Your task to perform on an android device: Go to calendar. Show me events next week Image 0: 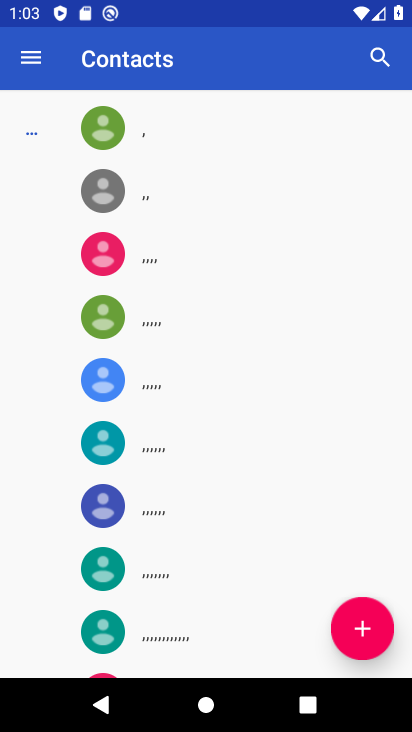
Step 0: press home button
Your task to perform on an android device: Go to calendar. Show me events next week Image 1: 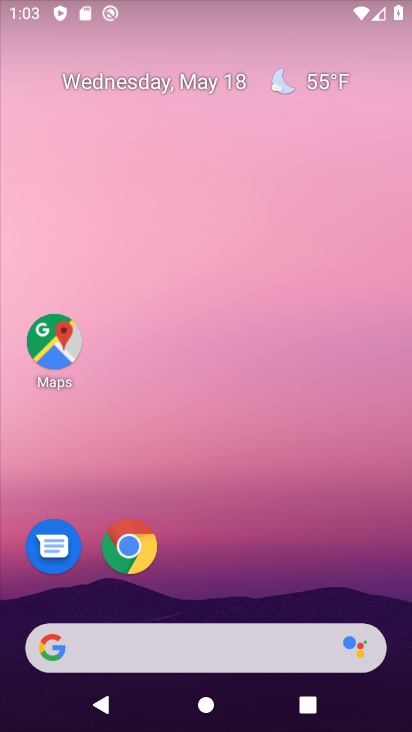
Step 1: drag from (329, 508) to (333, 100)
Your task to perform on an android device: Go to calendar. Show me events next week Image 2: 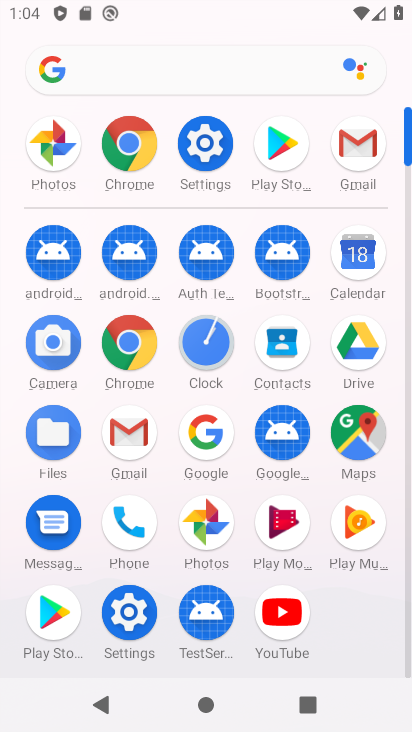
Step 2: click (363, 256)
Your task to perform on an android device: Go to calendar. Show me events next week Image 3: 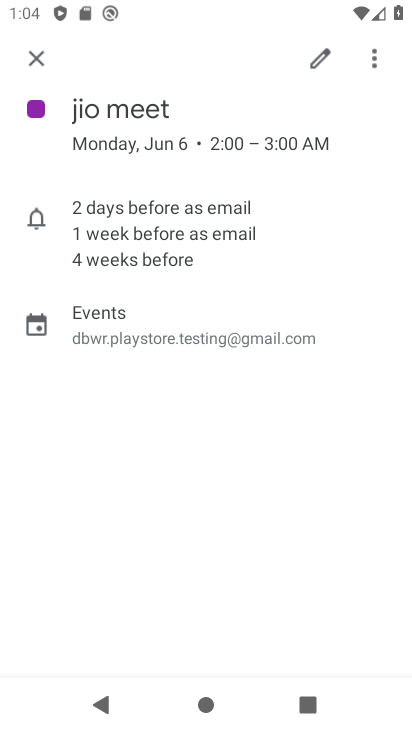
Step 3: click (34, 64)
Your task to perform on an android device: Go to calendar. Show me events next week Image 4: 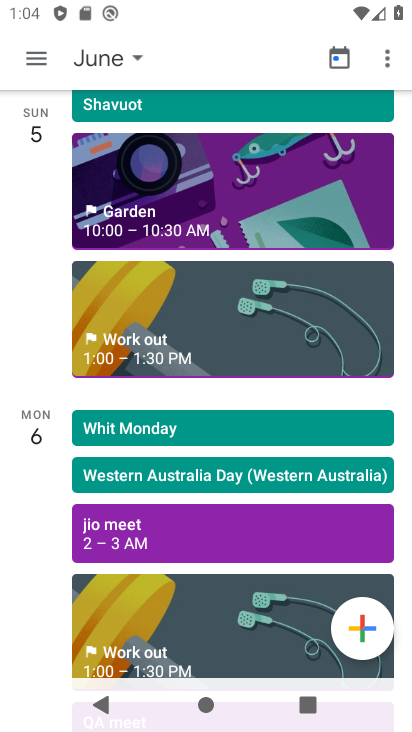
Step 4: click (107, 49)
Your task to perform on an android device: Go to calendar. Show me events next week Image 5: 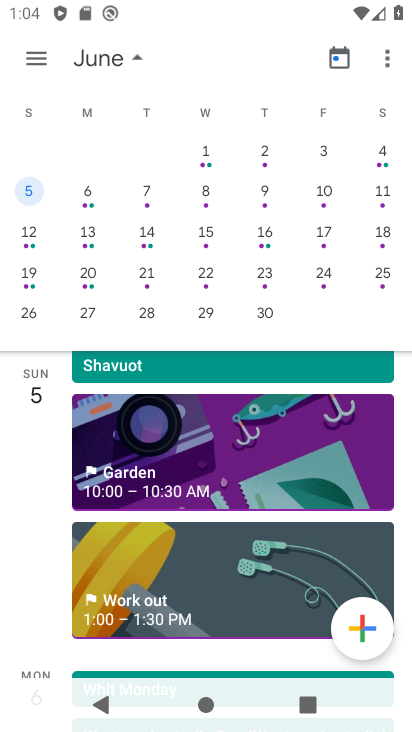
Step 5: drag from (89, 144) to (367, 168)
Your task to perform on an android device: Go to calendar. Show me events next week Image 6: 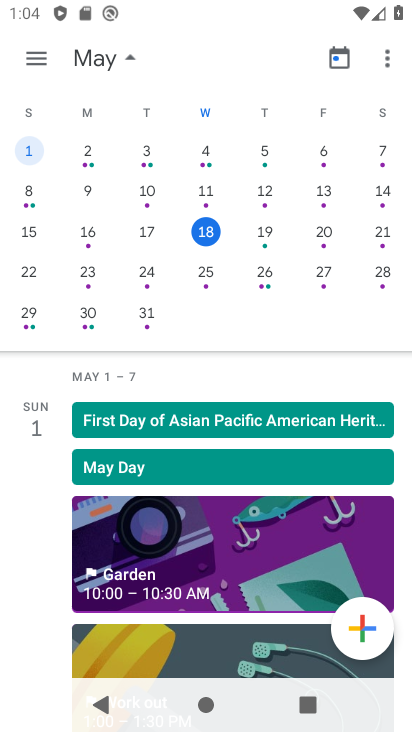
Step 6: click (29, 282)
Your task to perform on an android device: Go to calendar. Show me events next week Image 7: 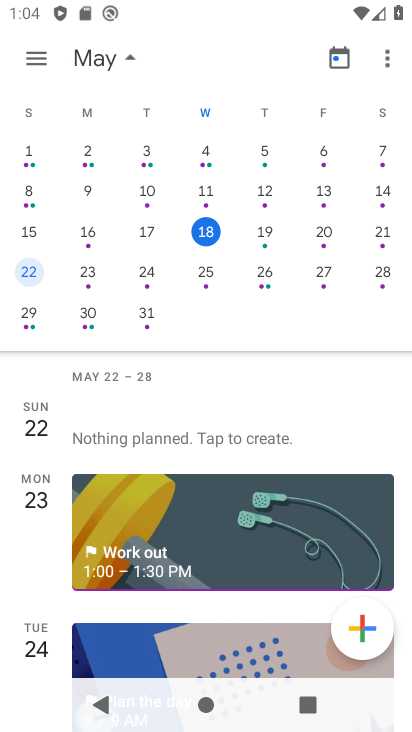
Step 7: task complete